Your task to perform on an android device: toggle sleep mode Image 0: 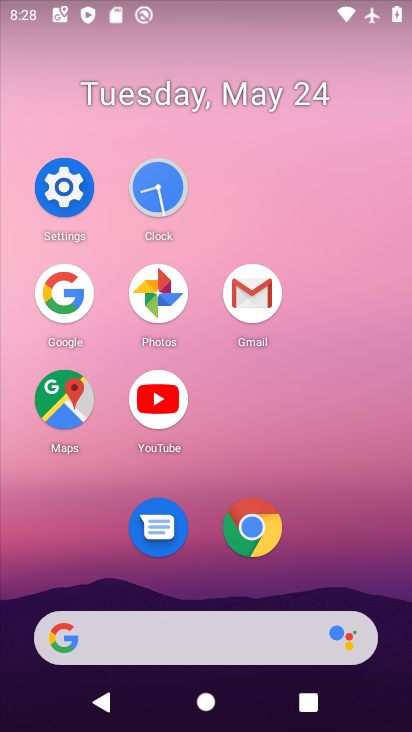
Step 0: click (76, 166)
Your task to perform on an android device: toggle sleep mode Image 1: 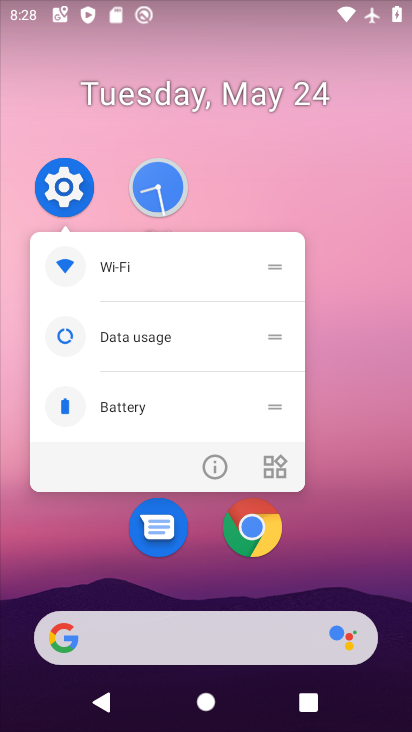
Step 1: click (65, 196)
Your task to perform on an android device: toggle sleep mode Image 2: 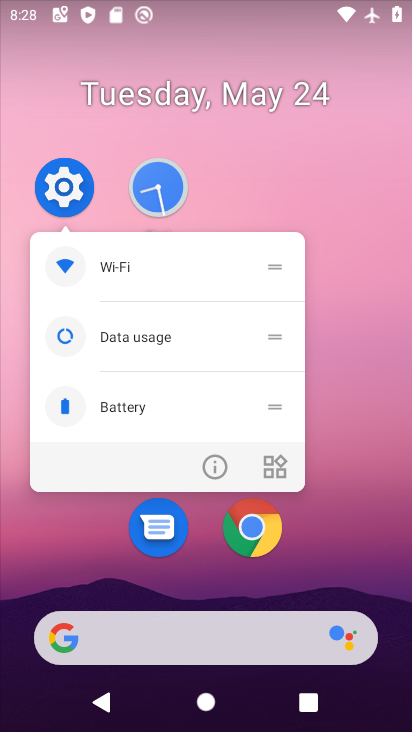
Step 2: click (65, 195)
Your task to perform on an android device: toggle sleep mode Image 3: 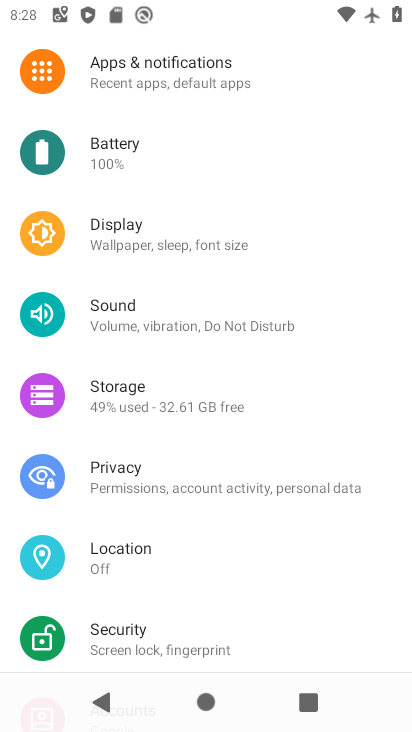
Step 3: click (206, 249)
Your task to perform on an android device: toggle sleep mode Image 4: 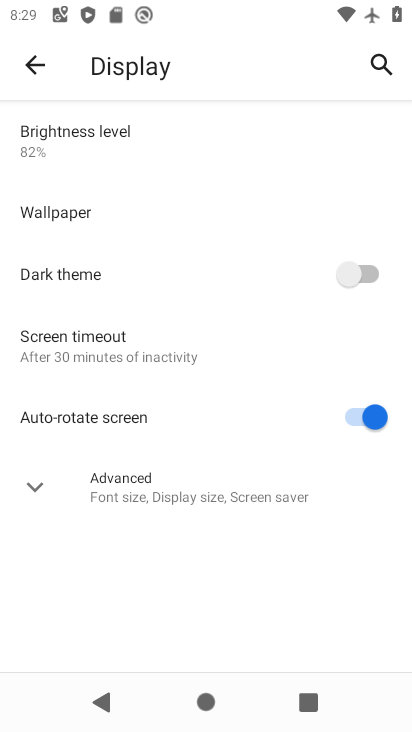
Step 4: click (213, 360)
Your task to perform on an android device: toggle sleep mode Image 5: 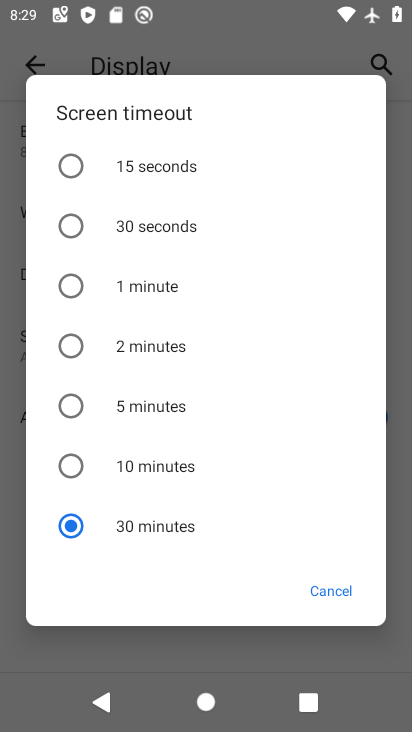
Step 5: click (140, 292)
Your task to perform on an android device: toggle sleep mode Image 6: 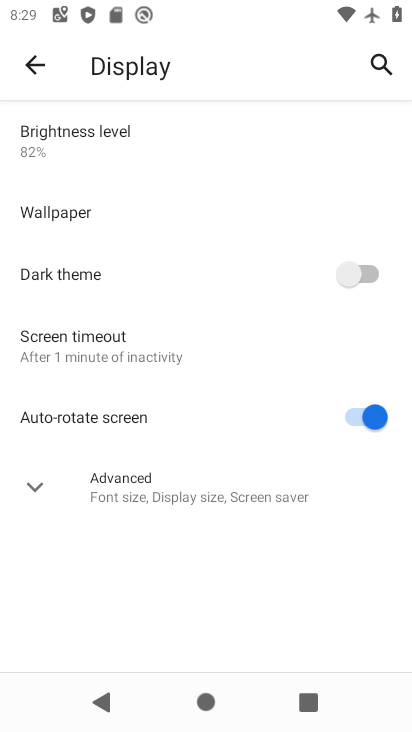
Step 6: task complete